Your task to perform on an android device: turn on data saver in the chrome app Image 0: 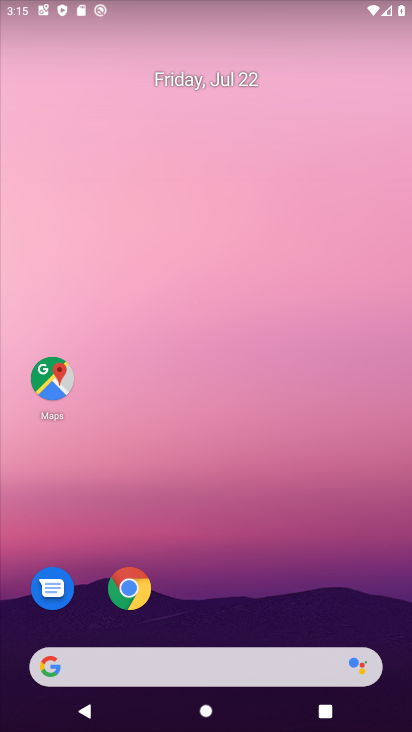
Step 0: click (132, 595)
Your task to perform on an android device: turn on data saver in the chrome app Image 1: 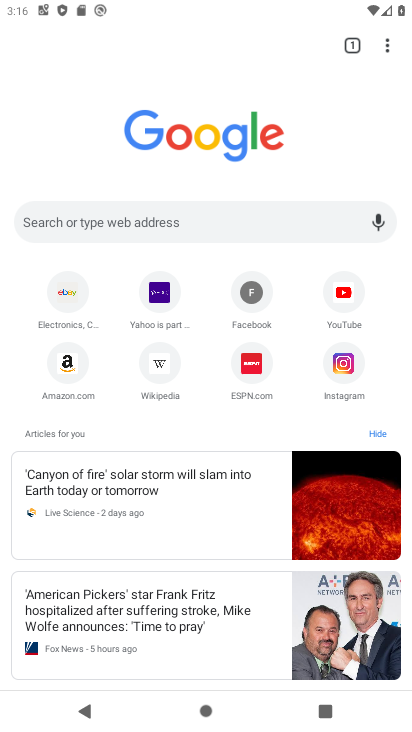
Step 1: click (387, 53)
Your task to perform on an android device: turn on data saver in the chrome app Image 2: 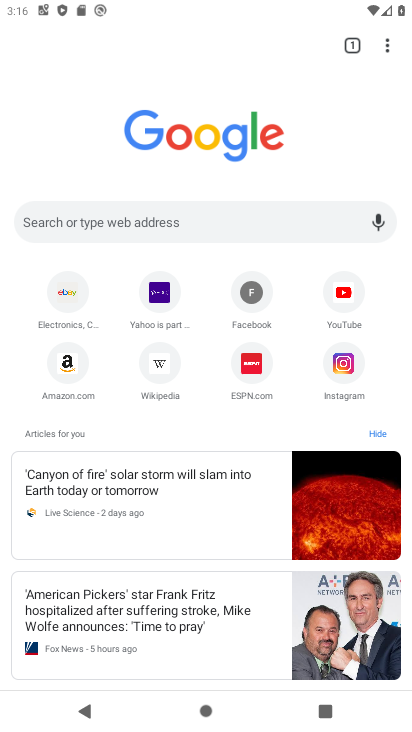
Step 2: click (393, 35)
Your task to perform on an android device: turn on data saver in the chrome app Image 3: 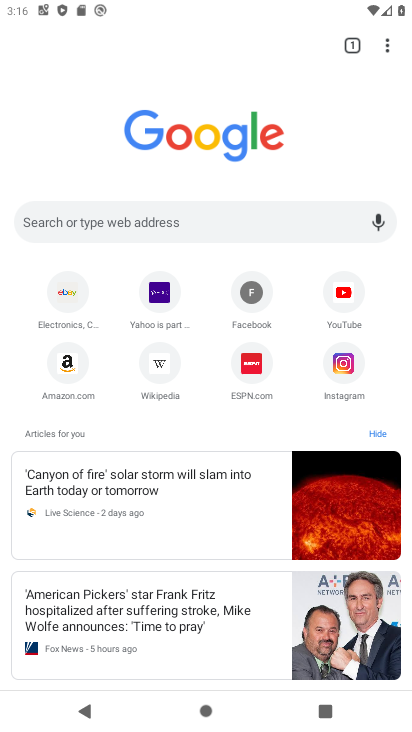
Step 3: click (388, 44)
Your task to perform on an android device: turn on data saver in the chrome app Image 4: 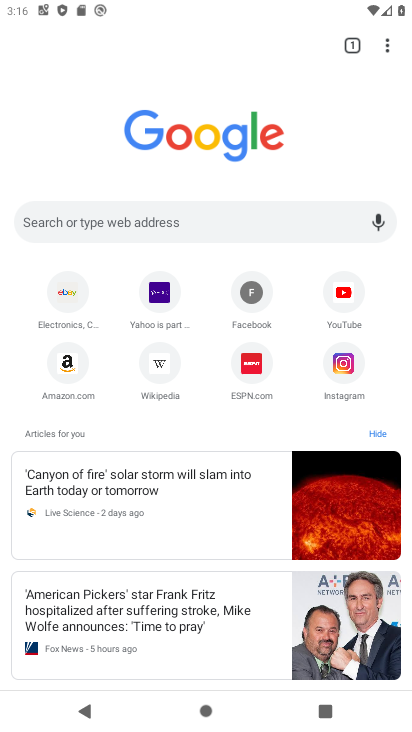
Step 4: click (385, 42)
Your task to perform on an android device: turn on data saver in the chrome app Image 5: 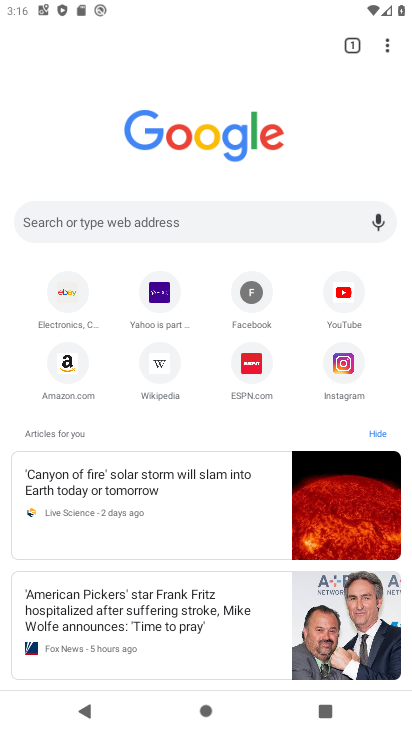
Step 5: click (378, 47)
Your task to perform on an android device: turn on data saver in the chrome app Image 6: 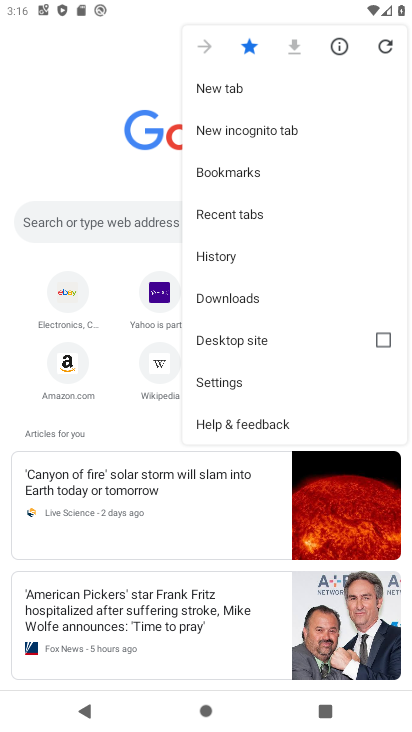
Step 6: click (228, 376)
Your task to perform on an android device: turn on data saver in the chrome app Image 7: 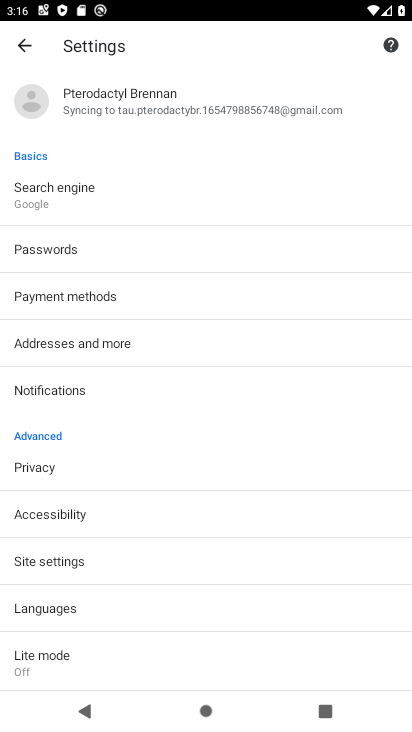
Step 7: drag from (101, 635) to (168, 295)
Your task to perform on an android device: turn on data saver in the chrome app Image 8: 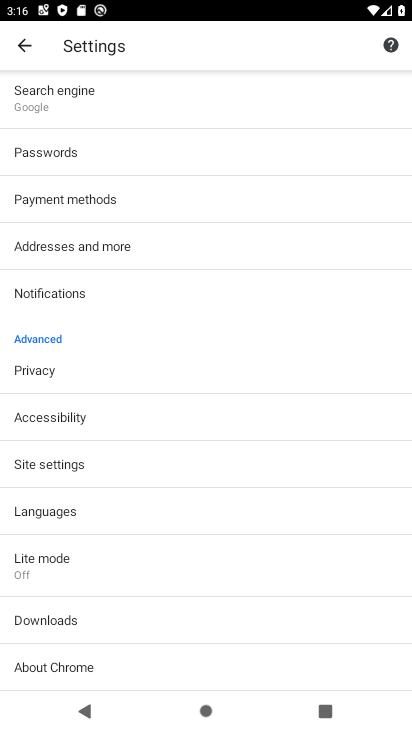
Step 8: click (48, 569)
Your task to perform on an android device: turn on data saver in the chrome app Image 9: 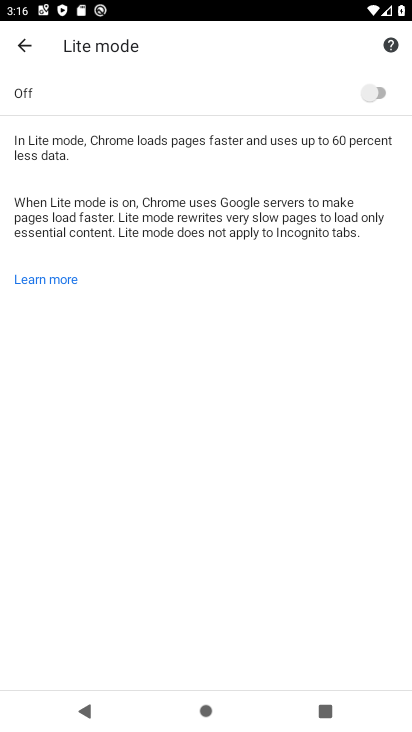
Step 9: click (373, 94)
Your task to perform on an android device: turn on data saver in the chrome app Image 10: 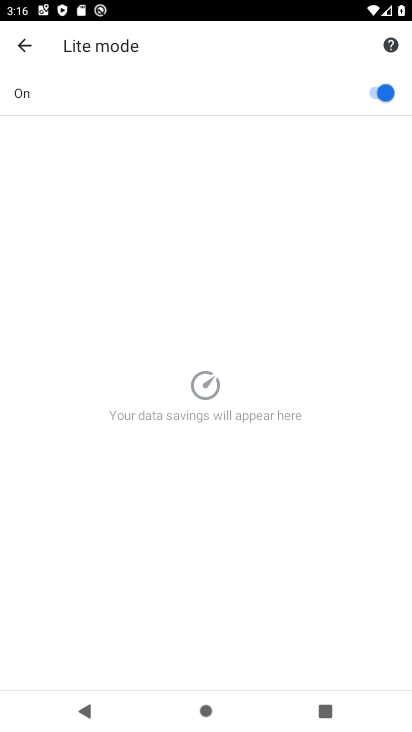
Step 10: task complete